Your task to perform on an android device: show emergency info Image 0: 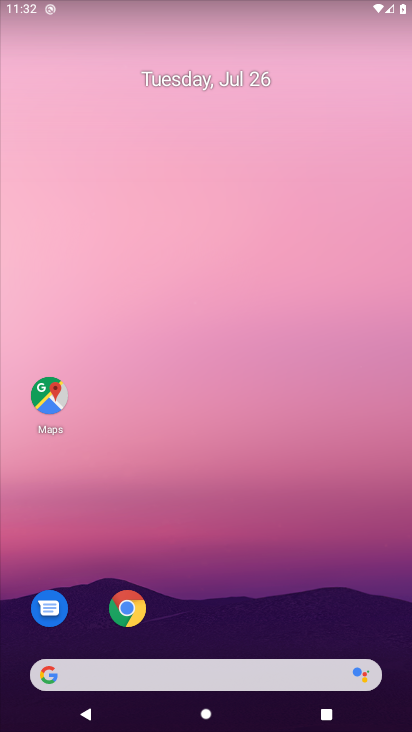
Step 0: press home button
Your task to perform on an android device: show emergency info Image 1: 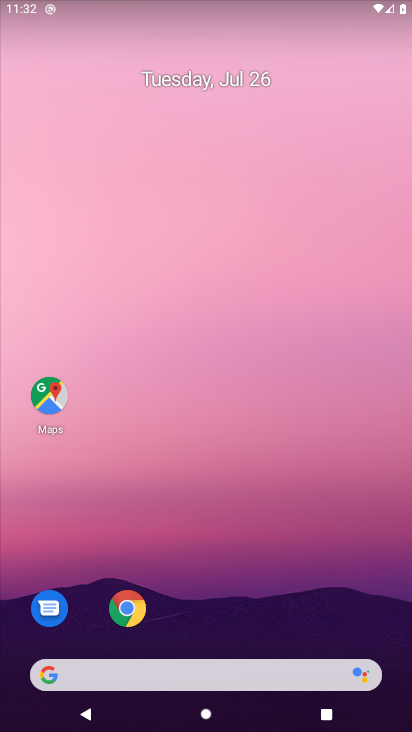
Step 1: drag from (302, 594) to (303, 99)
Your task to perform on an android device: show emergency info Image 2: 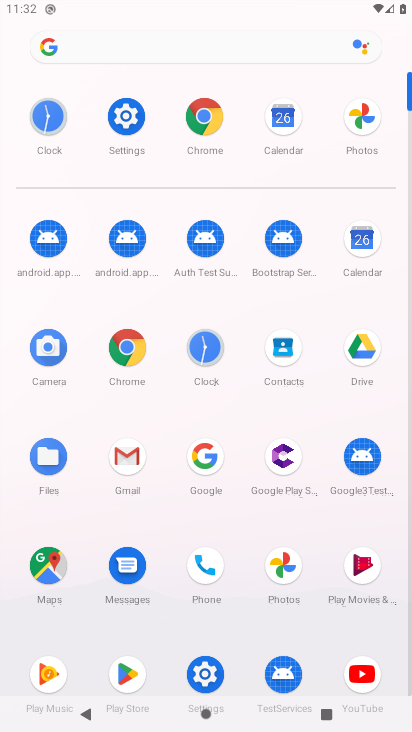
Step 2: click (133, 112)
Your task to perform on an android device: show emergency info Image 3: 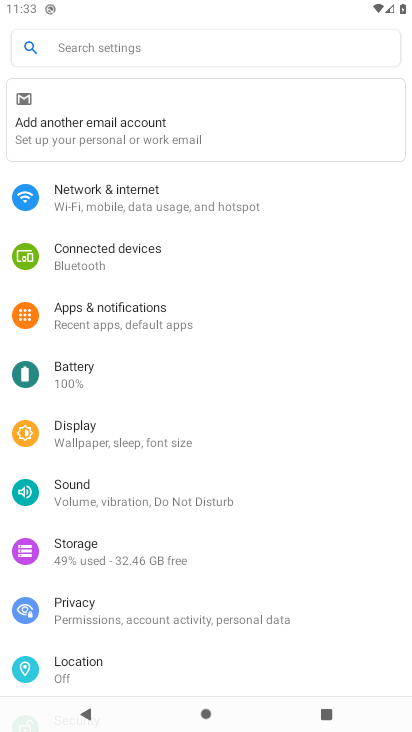
Step 3: drag from (332, 606) to (322, 204)
Your task to perform on an android device: show emergency info Image 4: 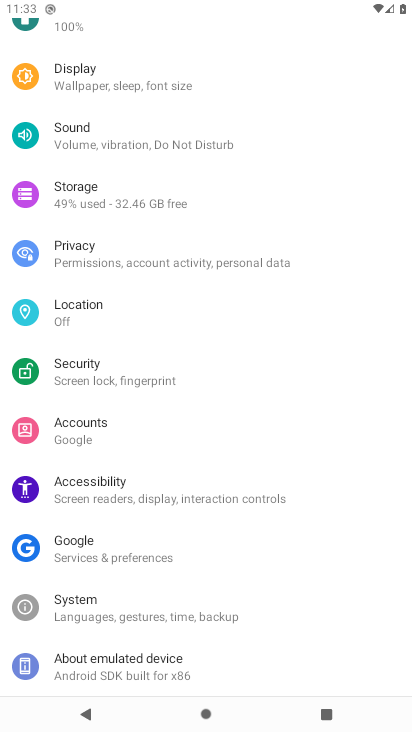
Step 4: click (160, 655)
Your task to perform on an android device: show emergency info Image 5: 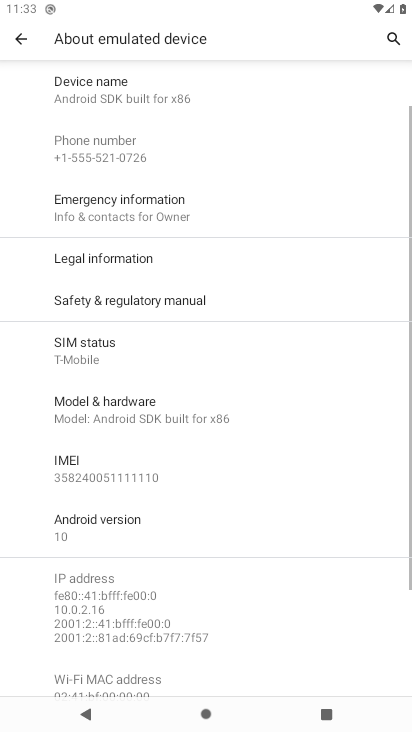
Step 5: click (148, 210)
Your task to perform on an android device: show emergency info Image 6: 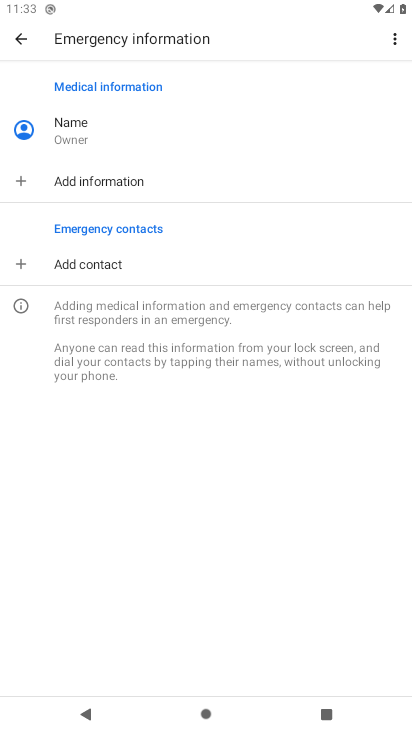
Step 6: task complete